Your task to perform on an android device: Go to Google Image 0: 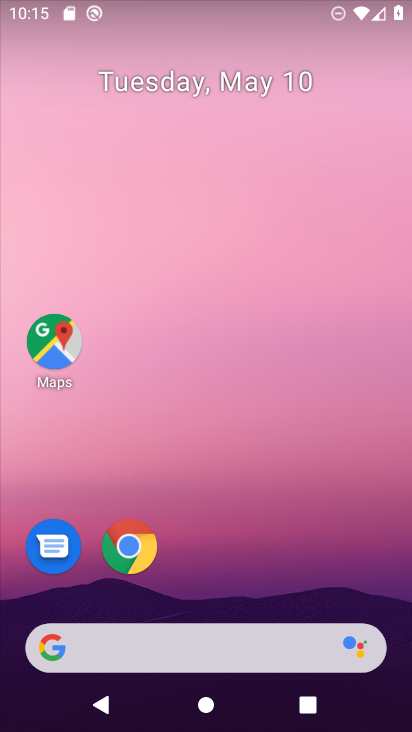
Step 0: drag from (268, 604) to (225, 183)
Your task to perform on an android device: Go to Google Image 1: 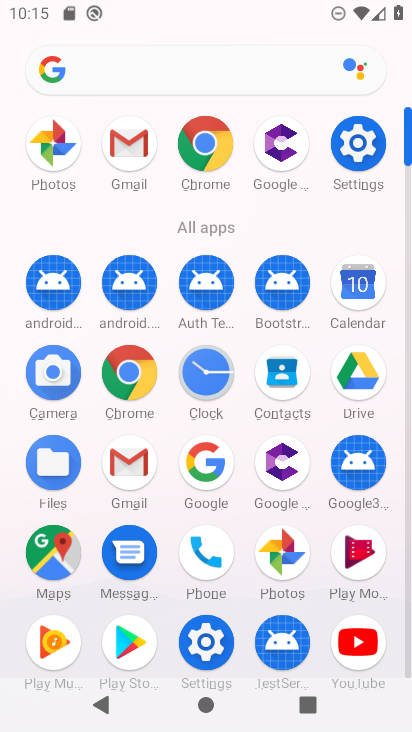
Step 1: click (198, 471)
Your task to perform on an android device: Go to Google Image 2: 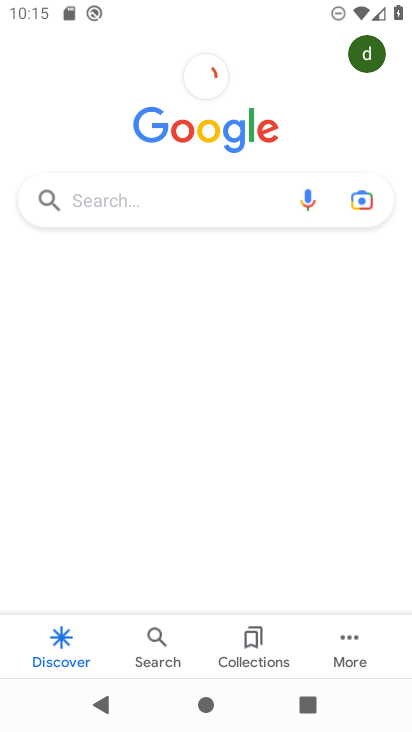
Step 2: task complete